Your task to perform on an android device: add a contact Image 0: 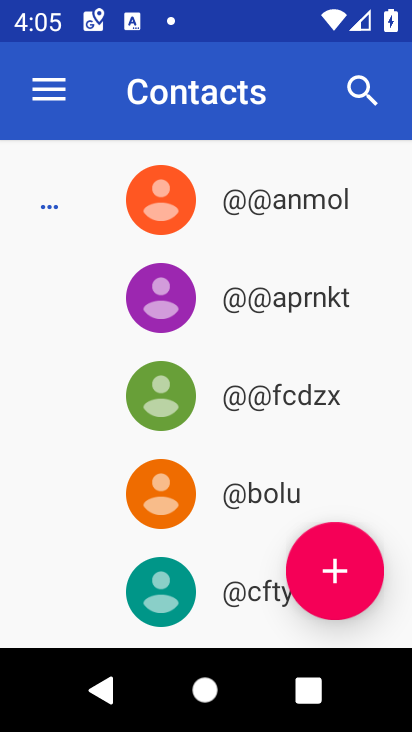
Step 0: press home button
Your task to perform on an android device: add a contact Image 1: 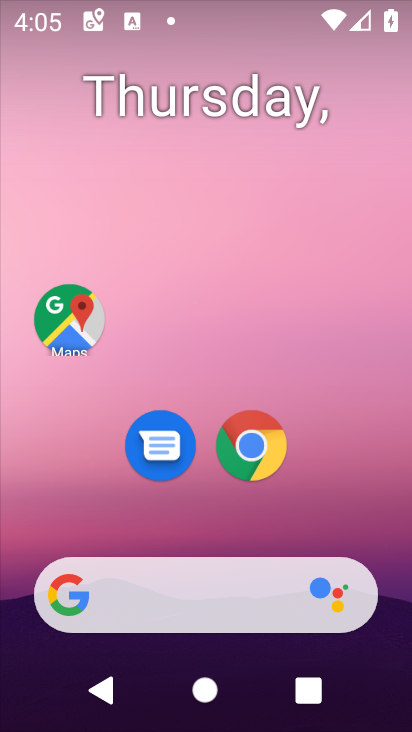
Step 1: drag from (335, 431) to (346, 10)
Your task to perform on an android device: add a contact Image 2: 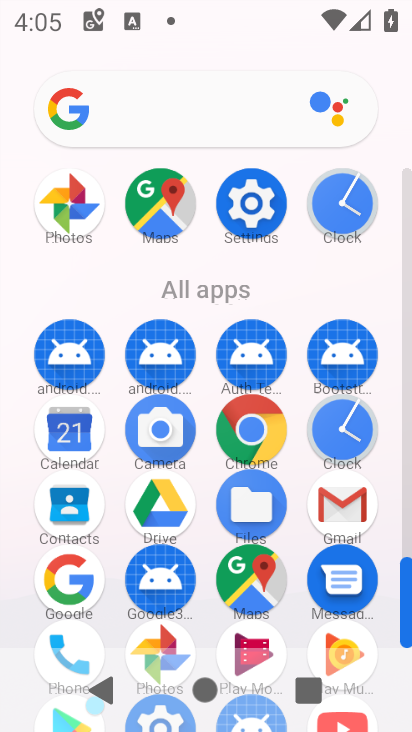
Step 2: click (64, 519)
Your task to perform on an android device: add a contact Image 3: 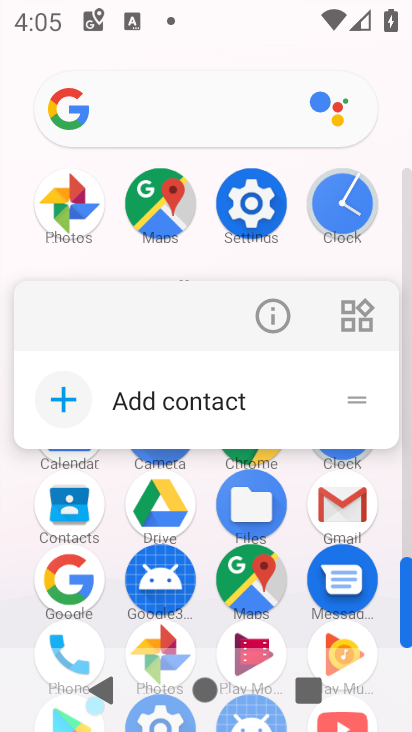
Step 3: click (89, 408)
Your task to perform on an android device: add a contact Image 4: 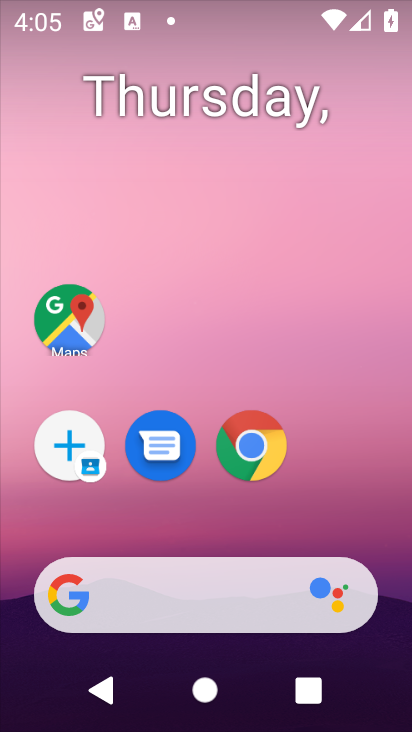
Step 4: drag from (345, 515) to (387, 55)
Your task to perform on an android device: add a contact Image 5: 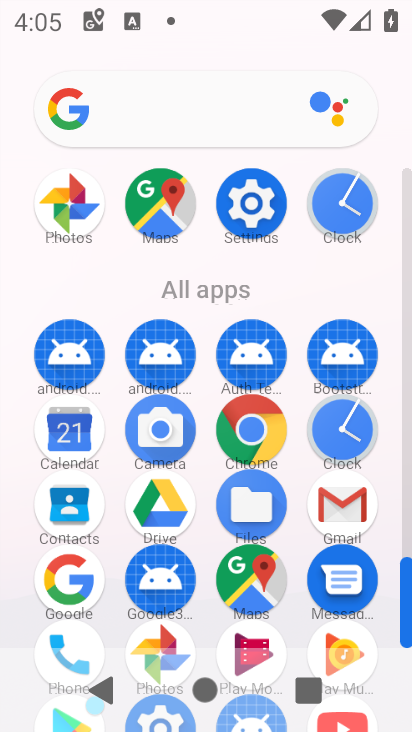
Step 5: click (76, 504)
Your task to perform on an android device: add a contact Image 6: 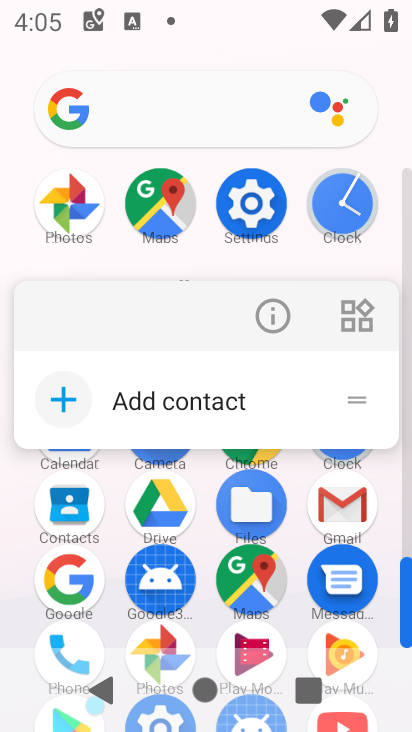
Step 6: click (76, 504)
Your task to perform on an android device: add a contact Image 7: 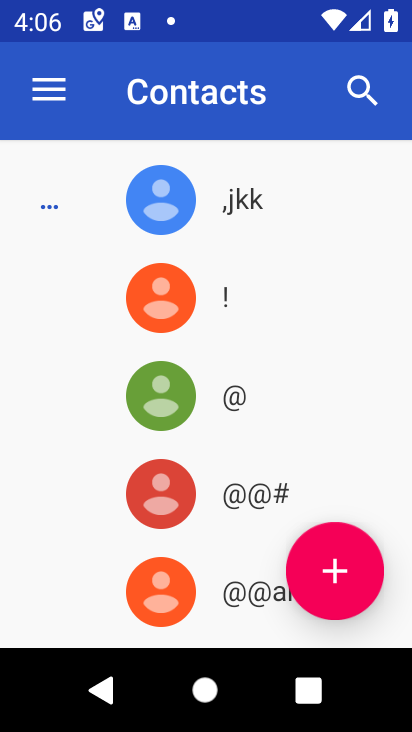
Step 7: click (332, 573)
Your task to perform on an android device: add a contact Image 8: 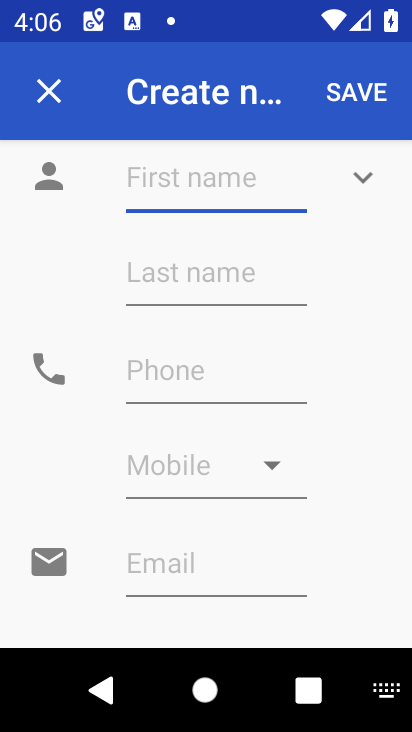
Step 8: click (176, 176)
Your task to perform on an android device: add a contact Image 9: 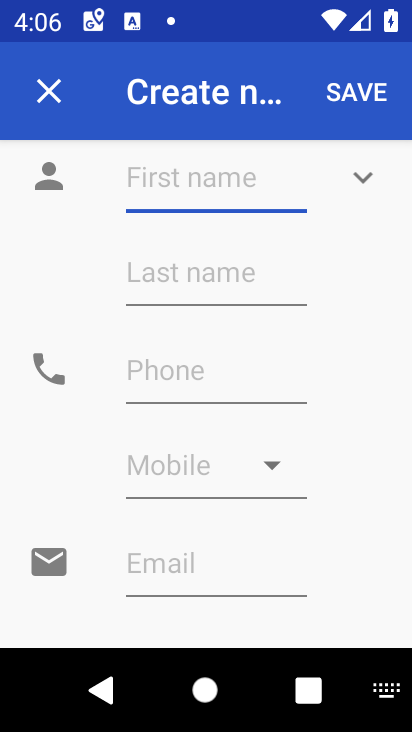
Step 9: type "meenu"
Your task to perform on an android device: add a contact Image 10: 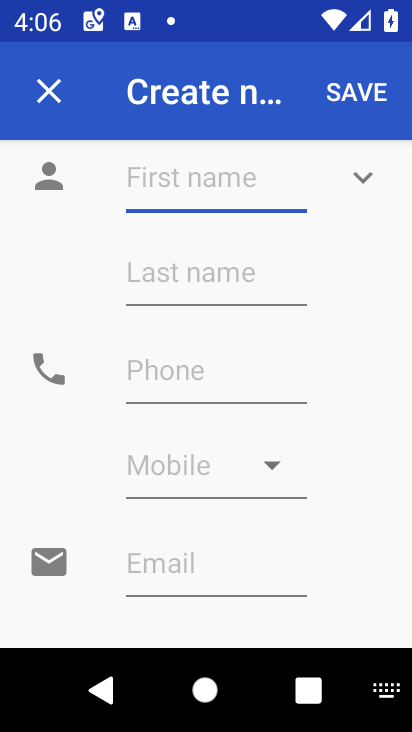
Step 10: click (209, 367)
Your task to perform on an android device: add a contact Image 11: 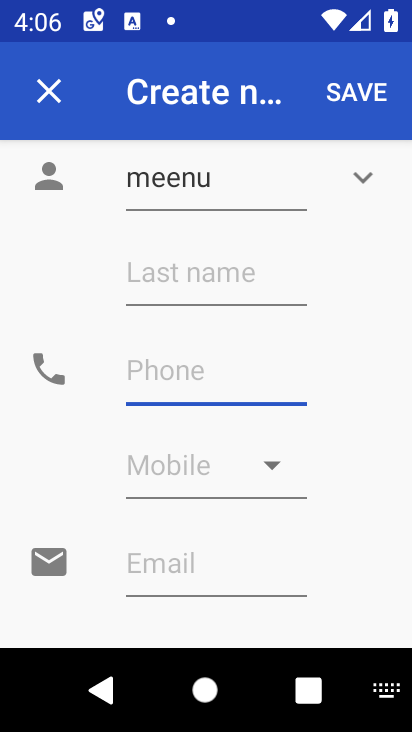
Step 11: type "9887654567"
Your task to perform on an android device: add a contact Image 12: 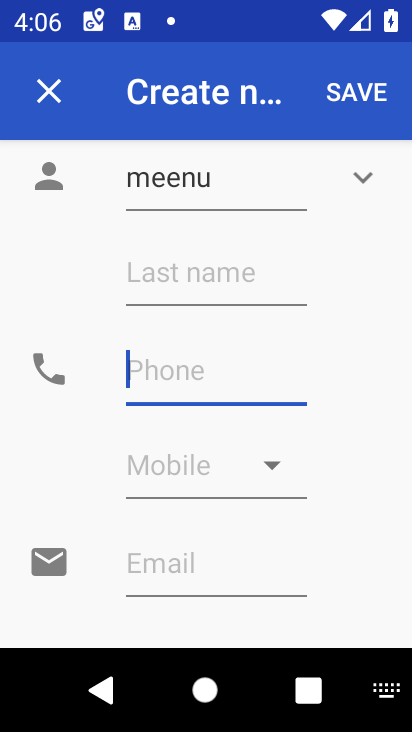
Step 12: click (370, 534)
Your task to perform on an android device: add a contact Image 13: 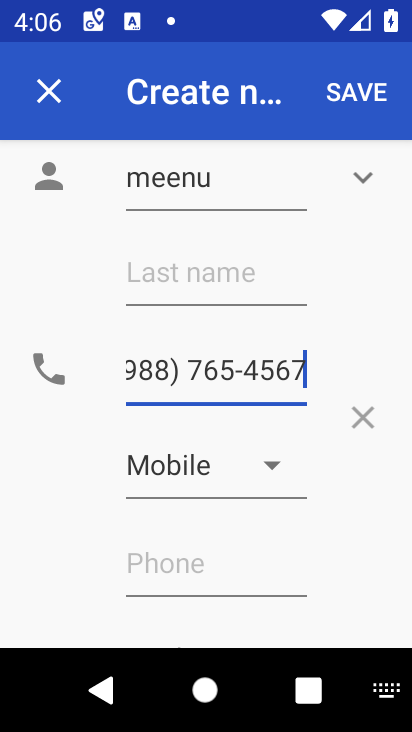
Step 13: click (364, 96)
Your task to perform on an android device: add a contact Image 14: 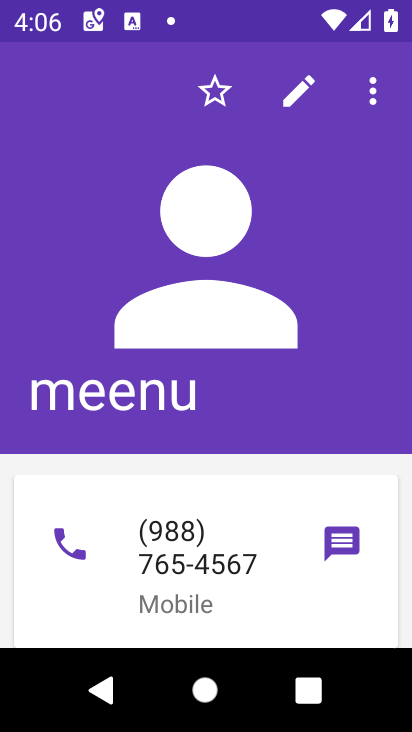
Step 14: task complete